Your task to perform on an android device: turn off data saver in the chrome app Image 0: 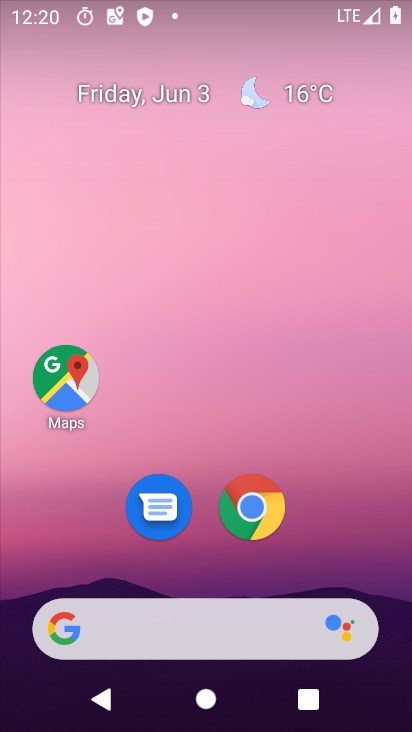
Step 0: drag from (388, 593) to (357, 28)
Your task to perform on an android device: turn off data saver in the chrome app Image 1: 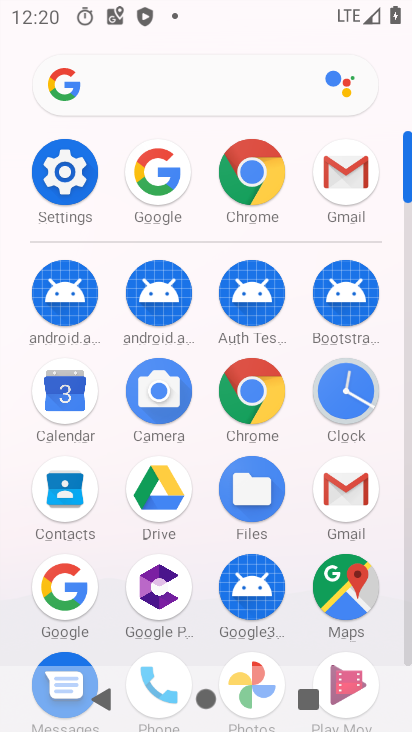
Step 1: click (234, 166)
Your task to perform on an android device: turn off data saver in the chrome app Image 2: 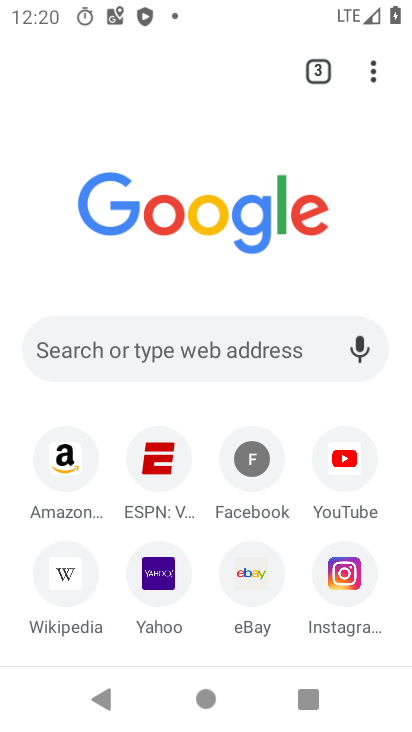
Step 2: click (371, 65)
Your task to perform on an android device: turn off data saver in the chrome app Image 3: 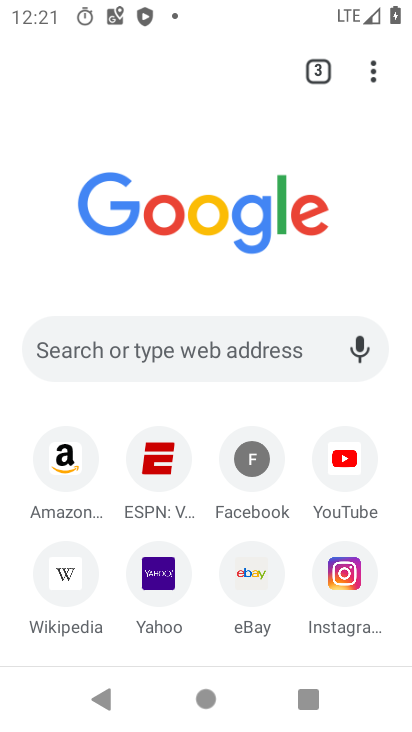
Step 3: click (370, 69)
Your task to perform on an android device: turn off data saver in the chrome app Image 4: 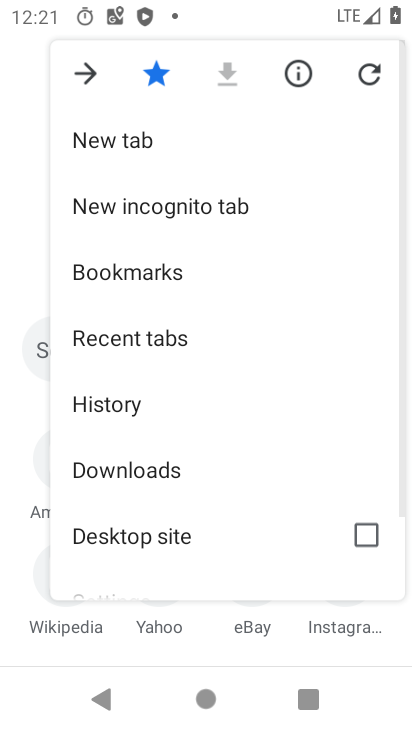
Step 4: drag from (137, 542) to (177, 118)
Your task to perform on an android device: turn off data saver in the chrome app Image 5: 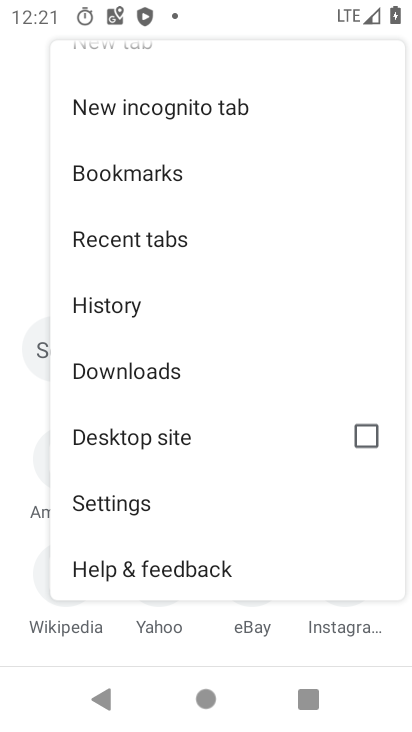
Step 5: click (133, 507)
Your task to perform on an android device: turn off data saver in the chrome app Image 6: 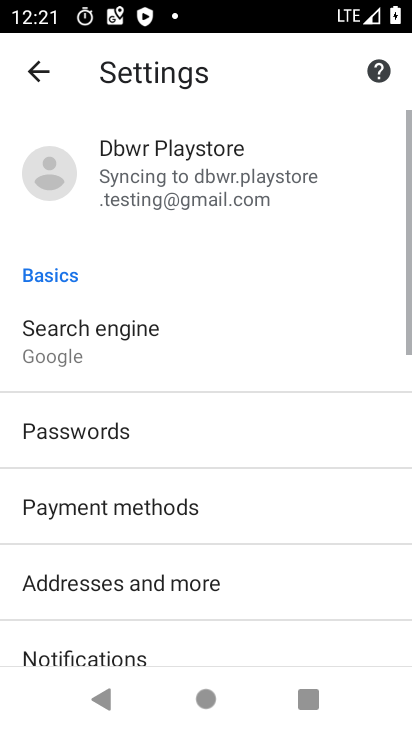
Step 6: drag from (169, 616) to (182, 92)
Your task to perform on an android device: turn off data saver in the chrome app Image 7: 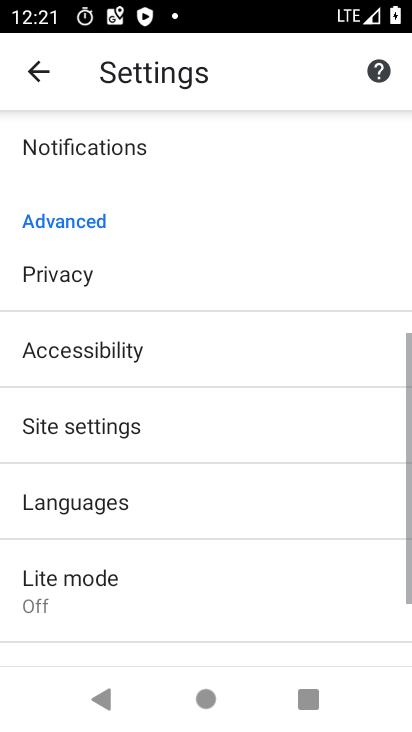
Step 7: click (114, 574)
Your task to perform on an android device: turn off data saver in the chrome app Image 8: 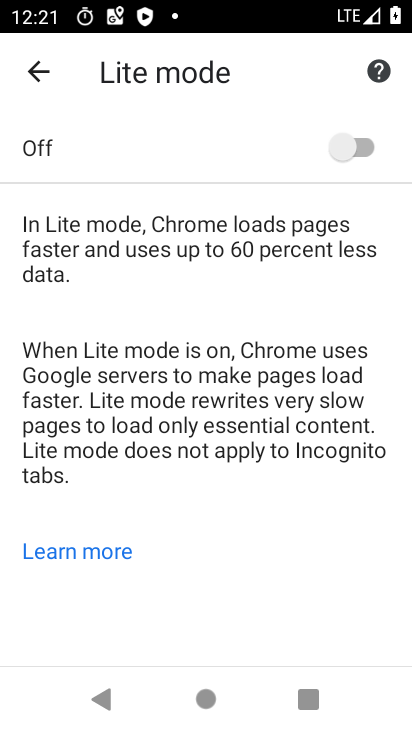
Step 8: task complete